Your task to perform on an android device: Go to calendar. Show me events next week Image 0: 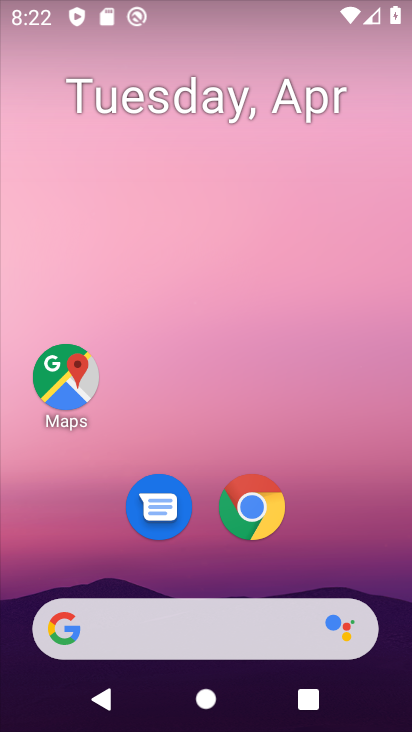
Step 0: click (202, 238)
Your task to perform on an android device: Go to calendar. Show me events next week Image 1: 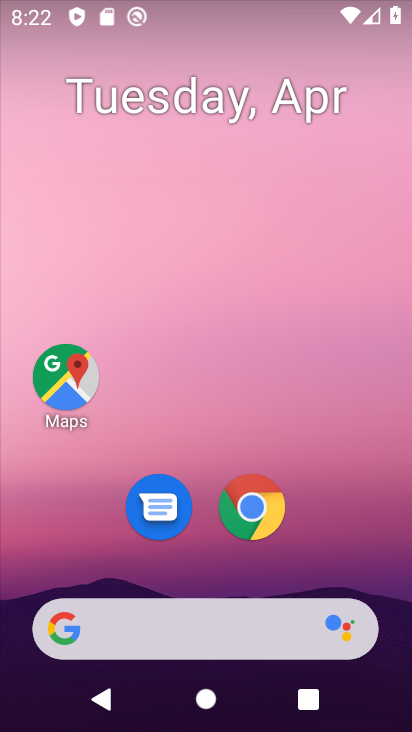
Step 1: drag from (211, 289) to (213, 142)
Your task to perform on an android device: Go to calendar. Show me events next week Image 2: 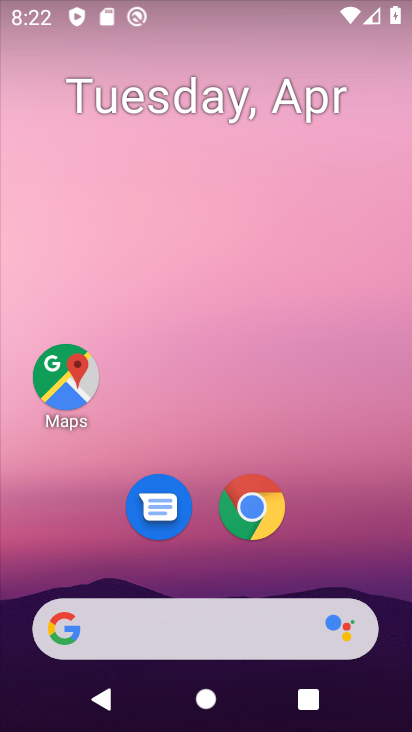
Step 2: drag from (225, 174) to (225, 123)
Your task to perform on an android device: Go to calendar. Show me events next week Image 3: 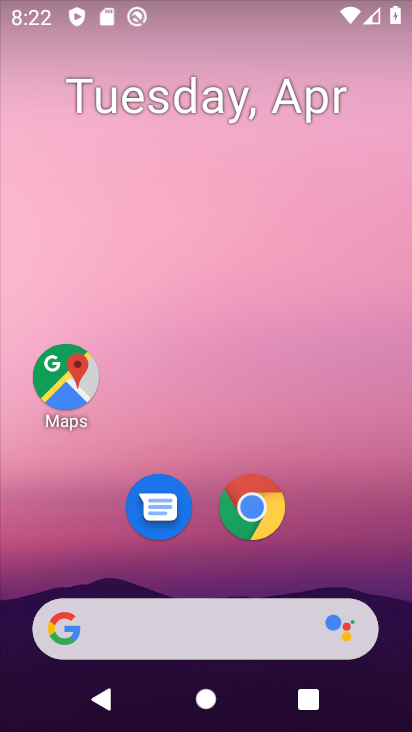
Step 3: drag from (215, 473) to (221, 129)
Your task to perform on an android device: Go to calendar. Show me events next week Image 4: 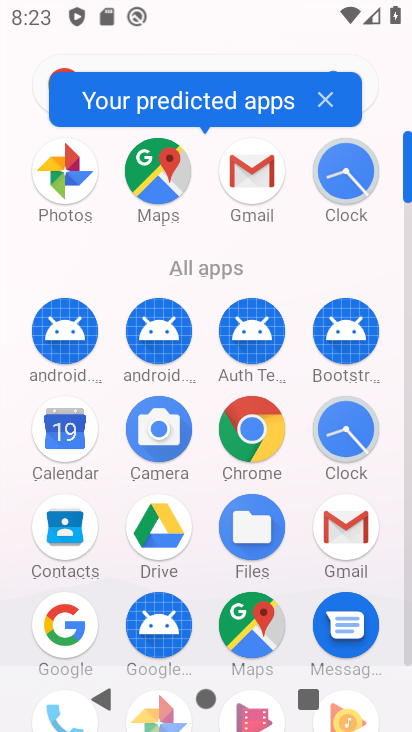
Step 4: click (71, 429)
Your task to perform on an android device: Go to calendar. Show me events next week Image 5: 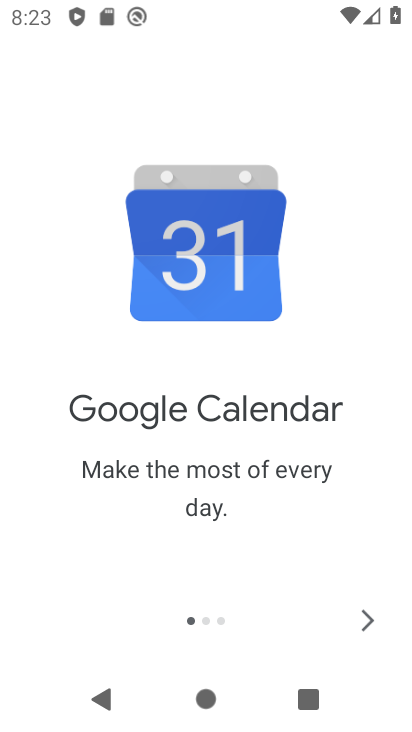
Step 5: click (365, 607)
Your task to perform on an android device: Go to calendar. Show me events next week Image 6: 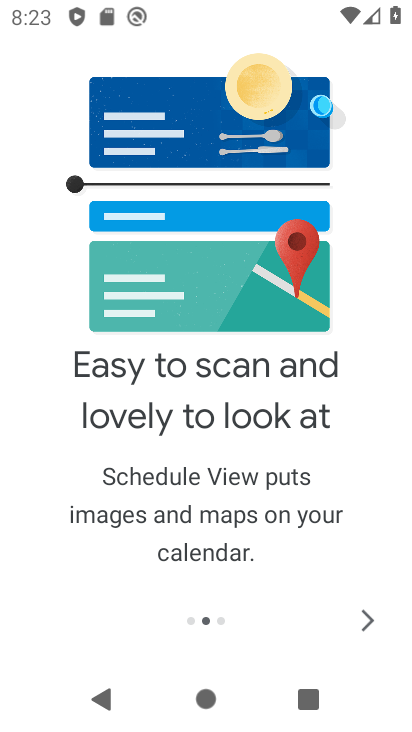
Step 6: click (365, 615)
Your task to perform on an android device: Go to calendar. Show me events next week Image 7: 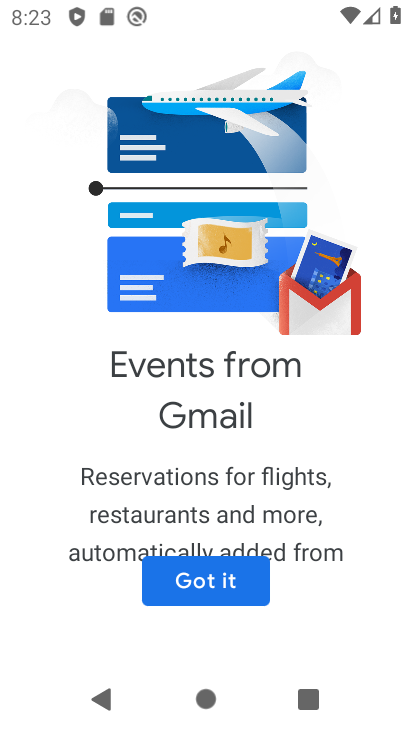
Step 7: click (246, 574)
Your task to perform on an android device: Go to calendar. Show me events next week Image 8: 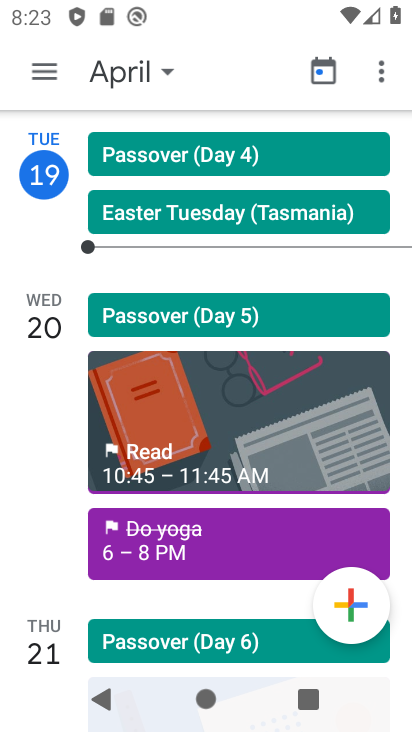
Step 8: click (160, 70)
Your task to perform on an android device: Go to calendar. Show me events next week Image 9: 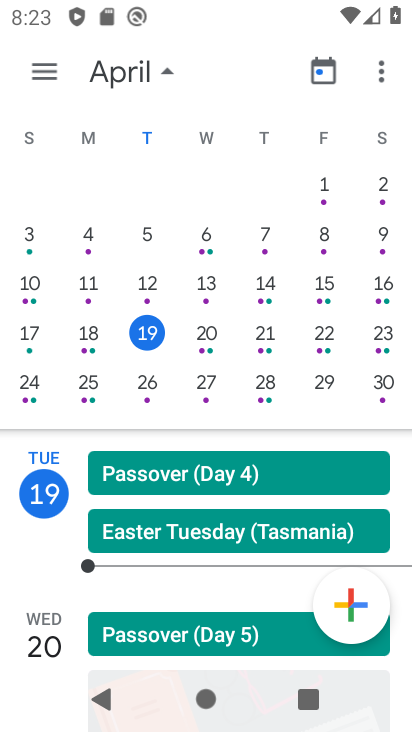
Step 9: click (84, 393)
Your task to perform on an android device: Go to calendar. Show me events next week Image 10: 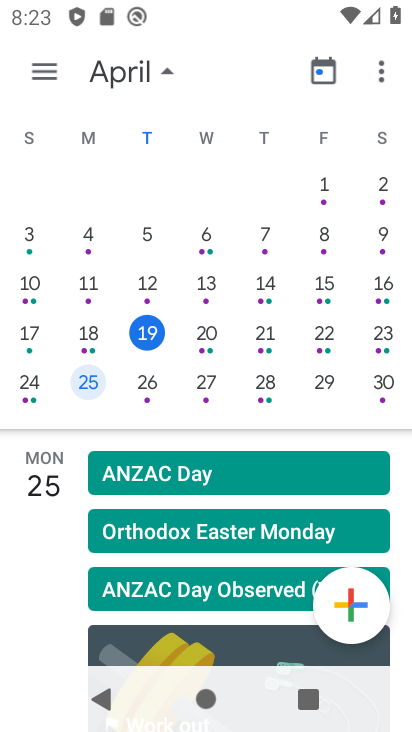
Step 10: click (198, 526)
Your task to perform on an android device: Go to calendar. Show me events next week Image 11: 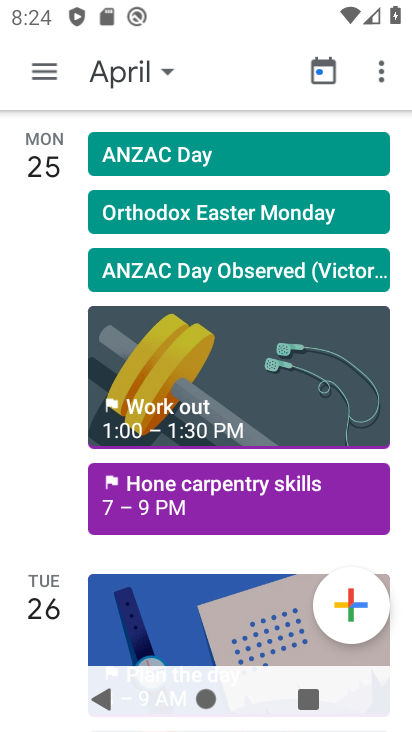
Step 11: task complete